Your task to perform on an android device: Do I have any events today? Image 0: 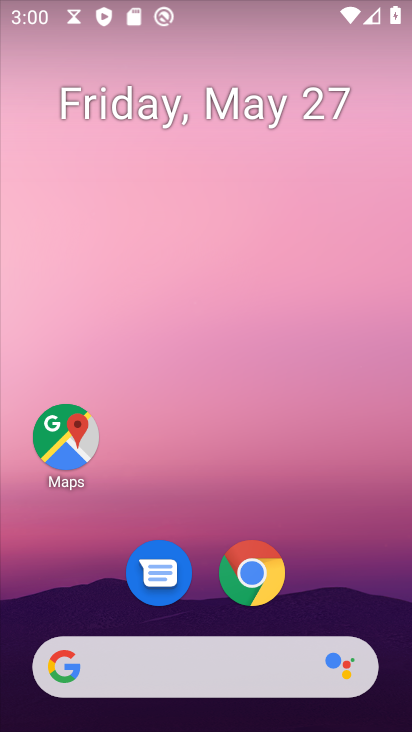
Step 0: drag from (344, 599) to (337, 13)
Your task to perform on an android device: Do I have any events today? Image 1: 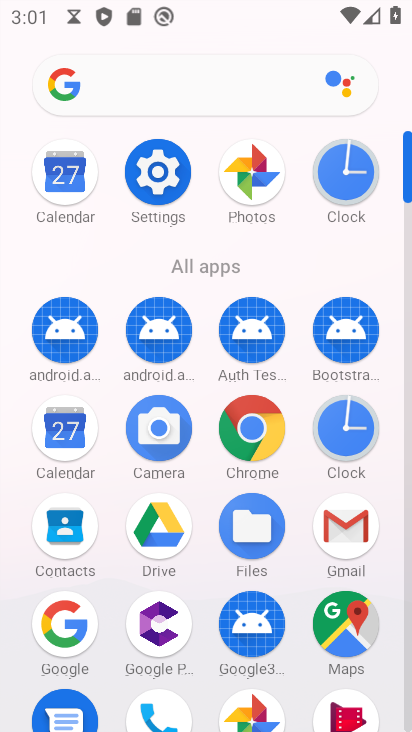
Step 1: click (74, 428)
Your task to perform on an android device: Do I have any events today? Image 2: 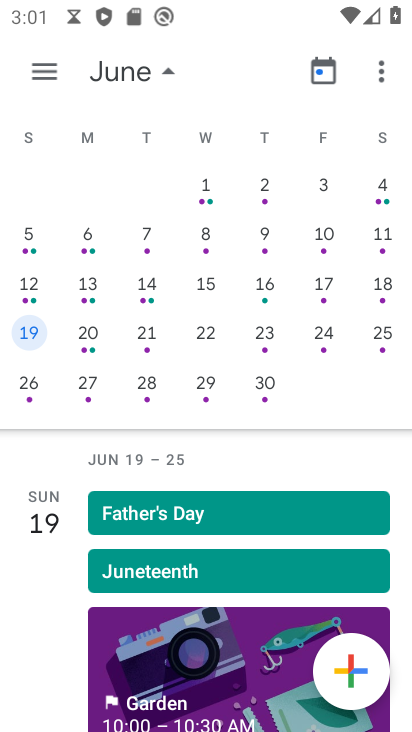
Step 2: drag from (71, 347) to (400, 353)
Your task to perform on an android device: Do I have any events today? Image 3: 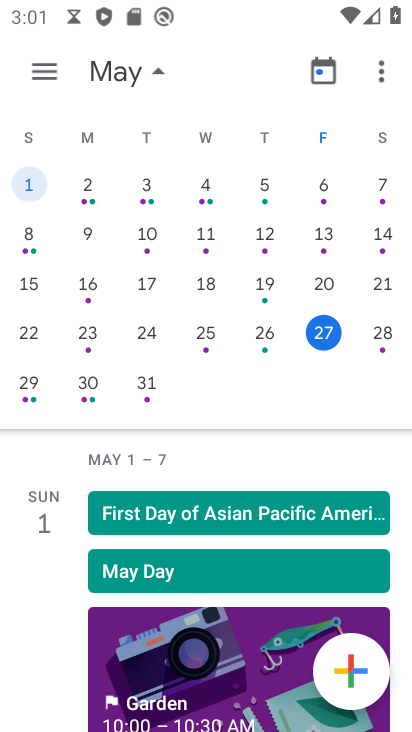
Step 3: click (318, 328)
Your task to perform on an android device: Do I have any events today? Image 4: 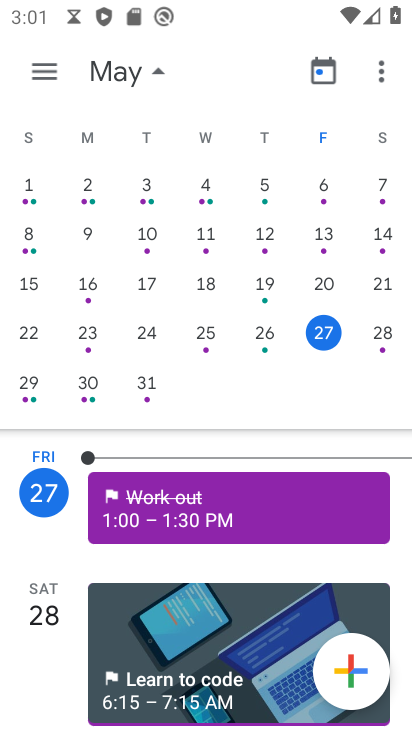
Step 4: task complete